Your task to perform on an android device: turn on priority inbox in the gmail app Image 0: 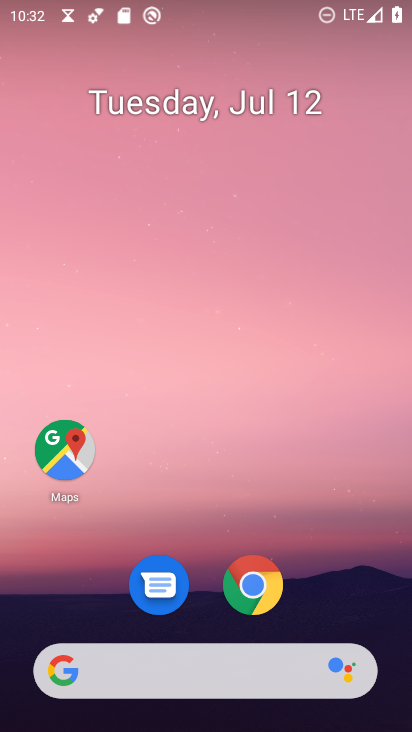
Step 0: drag from (169, 671) to (265, 0)
Your task to perform on an android device: turn on priority inbox in the gmail app Image 1: 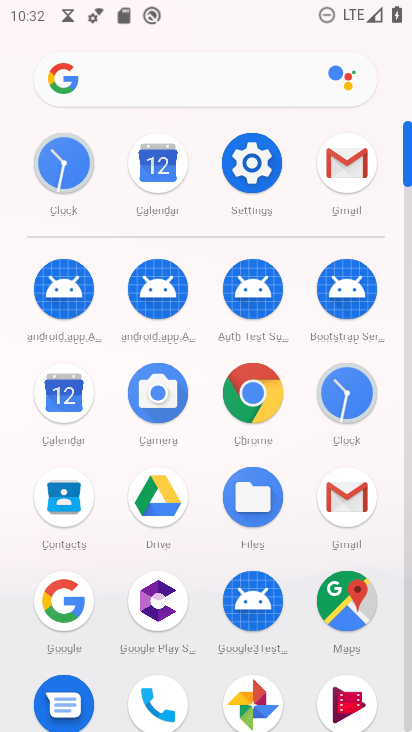
Step 1: click (347, 175)
Your task to perform on an android device: turn on priority inbox in the gmail app Image 2: 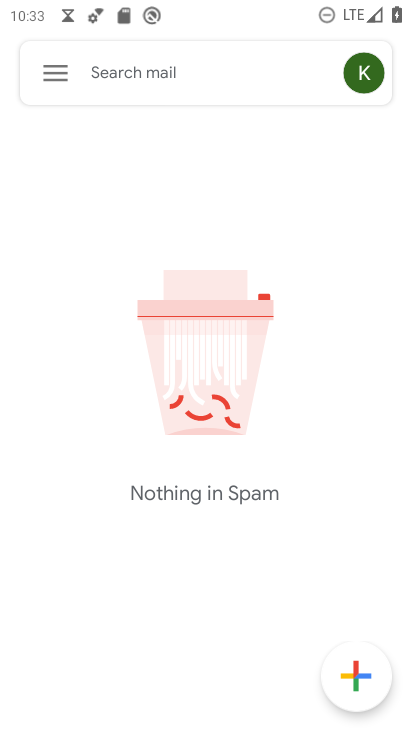
Step 2: click (60, 74)
Your task to perform on an android device: turn on priority inbox in the gmail app Image 3: 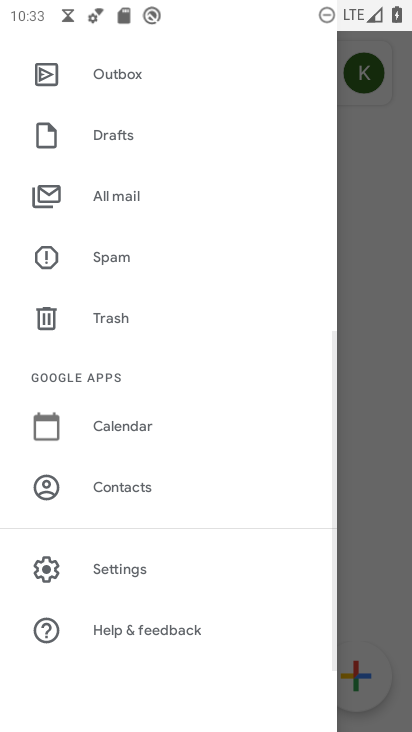
Step 3: click (140, 561)
Your task to perform on an android device: turn on priority inbox in the gmail app Image 4: 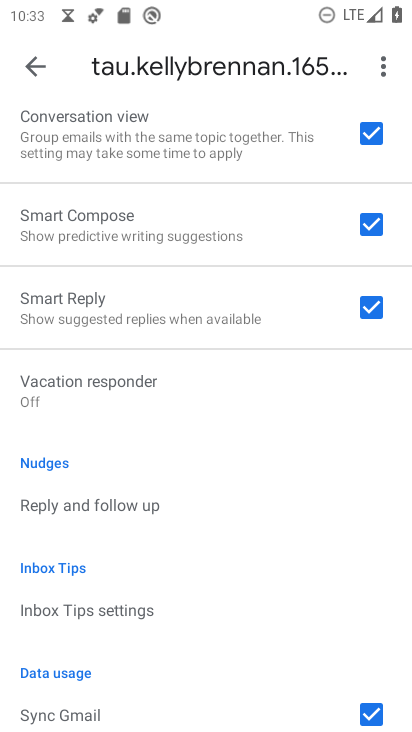
Step 4: drag from (214, 481) to (236, 656)
Your task to perform on an android device: turn on priority inbox in the gmail app Image 5: 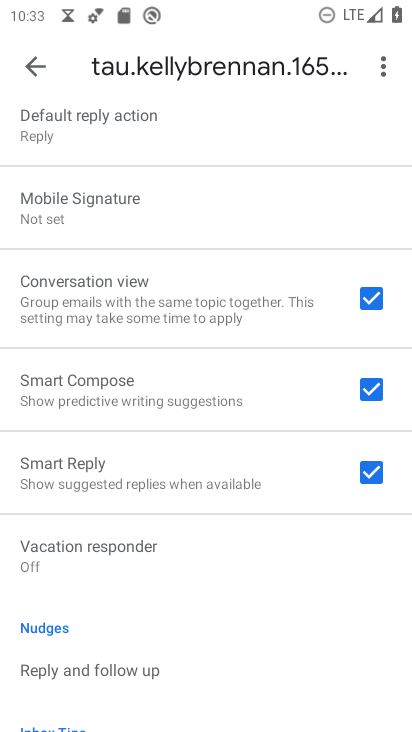
Step 5: drag from (195, 136) to (256, 671)
Your task to perform on an android device: turn on priority inbox in the gmail app Image 6: 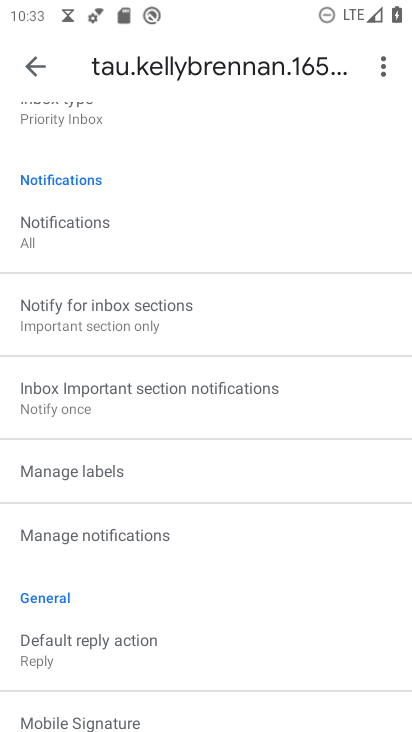
Step 6: drag from (238, 275) to (241, 513)
Your task to perform on an android device: turn on priority inbox in the gmail app Image 7: 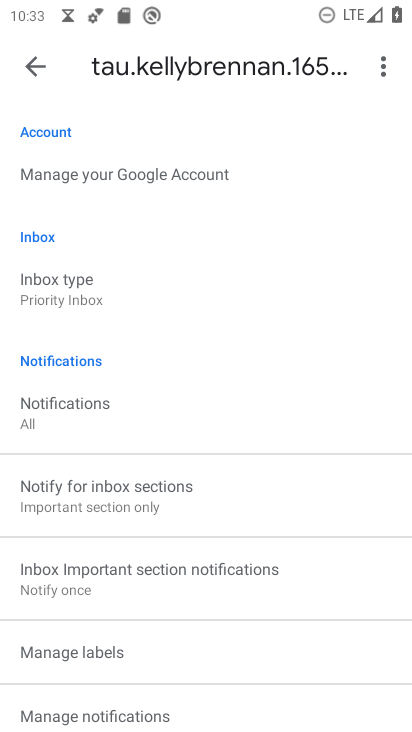
Step 7: click (46, 295)
Your task to perform on an android device: turn on priority inbox in the gmail app Image 8: 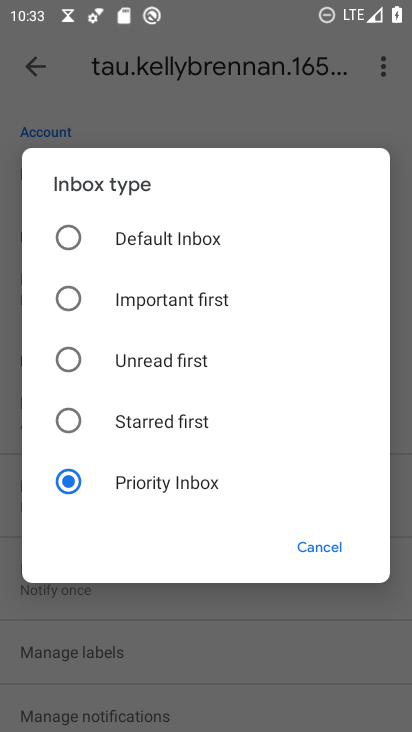
Step 8: task complete